Your task to perform on an android device: remove spam from my inbox in the gmail app Image 0: 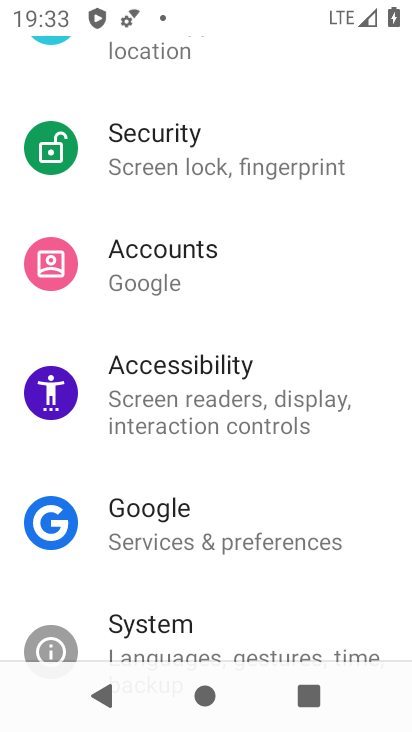
Step 0: press home button
Your task to perform on an android device: remove spam from my inbox in the gmail app Image 1: 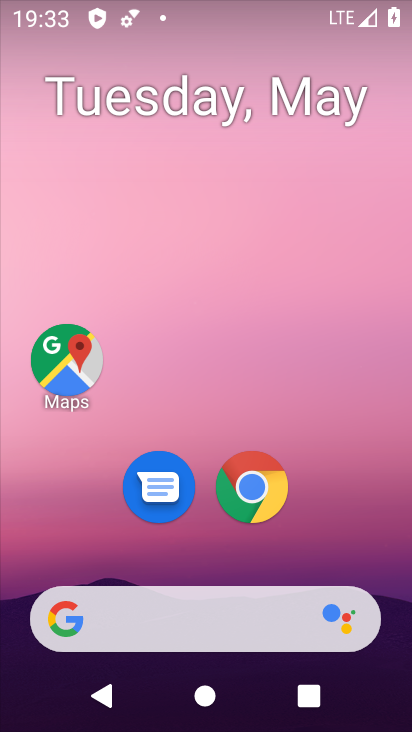
Step 1: drag from (338, 533) to (238, 55)
Your task to perform on an android device: remove spam from my inbox in the gmail app Image 2: 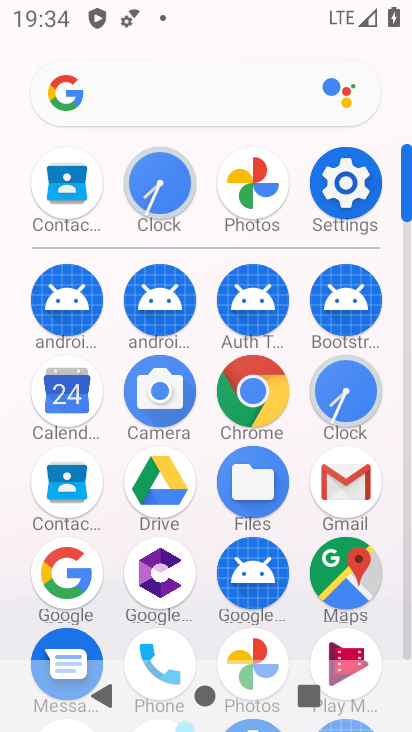
Step 2: click (348, 479)
Your task to perform on an android device: remove spam from my inbox in the gmail app Image 3: 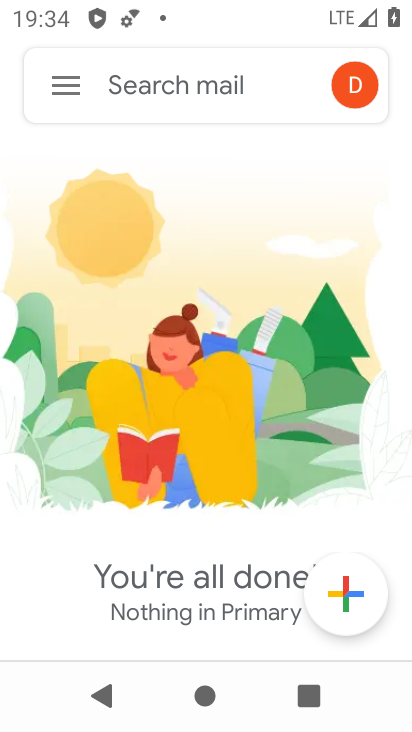
Step 3: click (59, 77)
Your task to perform on an android device: remove spam from my inbox in the gmail app Image 4: 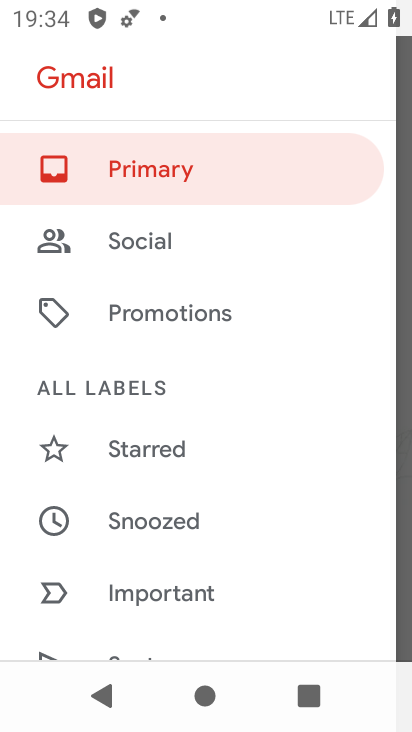
Step 4: drag from (209, 543) to (214, 160)
Your task to perform on an android device: remove spam from my inbox in the gmail app Image 5: 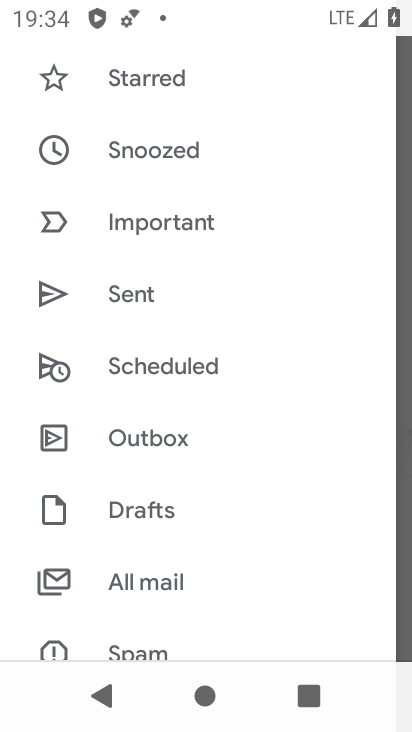
Step 5: click (124, 652)
Your task to perform on an android device: remove spam from my inbox in the gmail app Image 6: 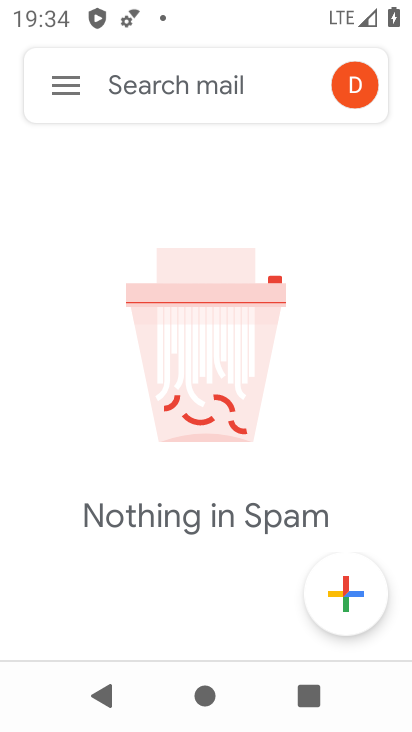
Step 6: task complete